Your task to perform on an android device: Go to Maps Image 0: 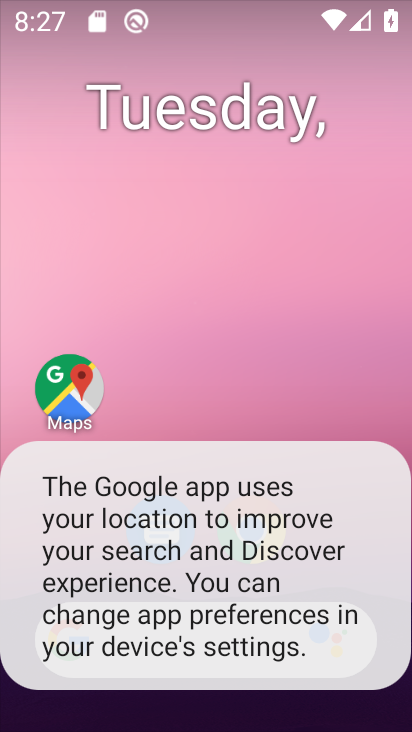
Step 0: click (114, 354)
Your task to perform on an android device: Go to Maps Image 1: 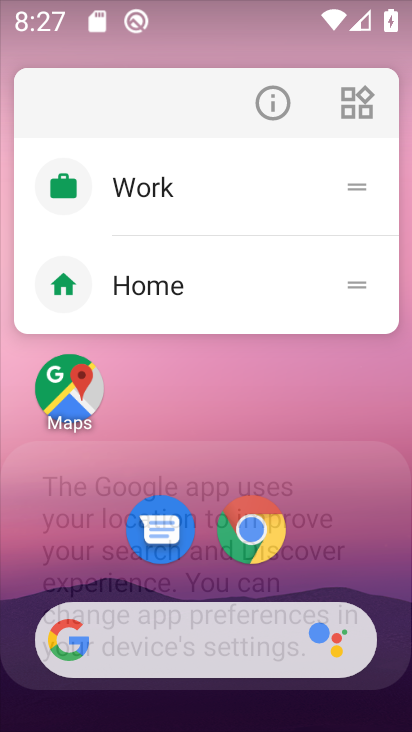
Step 1: click (74, 383)
Your task to perform on an android device: Go to Maps Image 2: 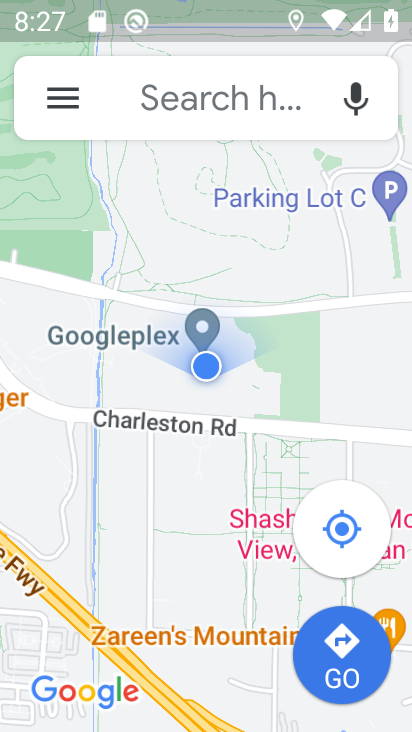
Step 2: task complete